Your task to perform on an android device: Open display settings Image 0: 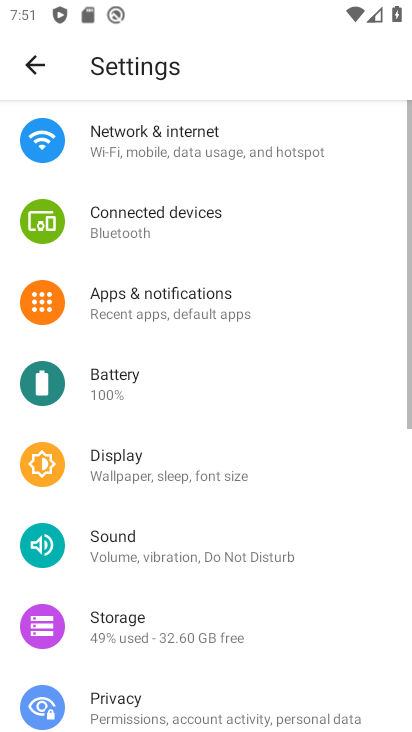
Step 0: press home button
Your task to perform on an android device: Open display settings Image 1: 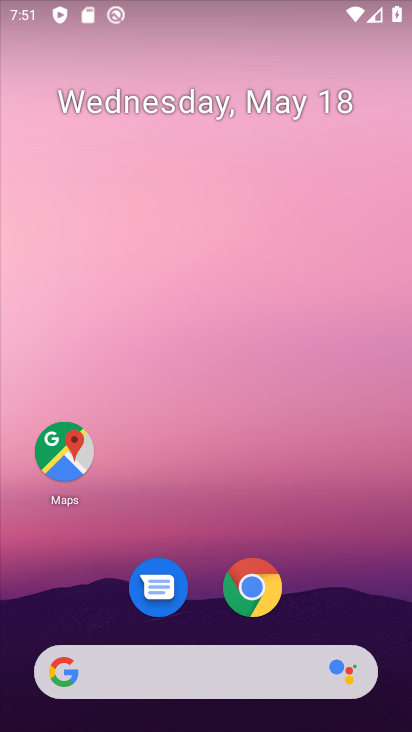
Step 1: drag from (160, 681) to (265, 118)
Your task to perform on an android device: Open display settings Image 2: 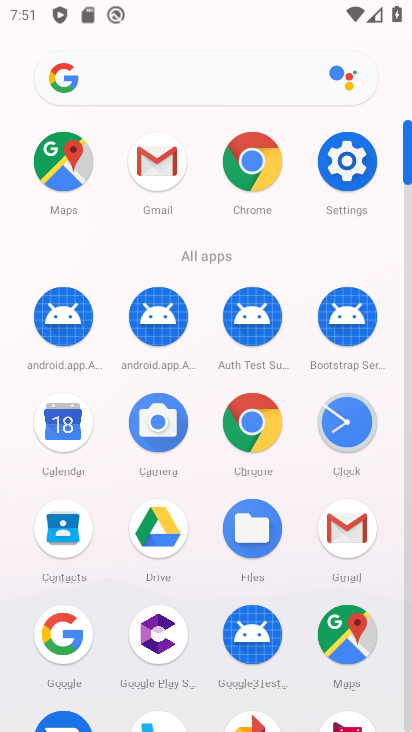
Step 2: click (347, 201)
Your task to perform on an android device: Open display settings Image 3: 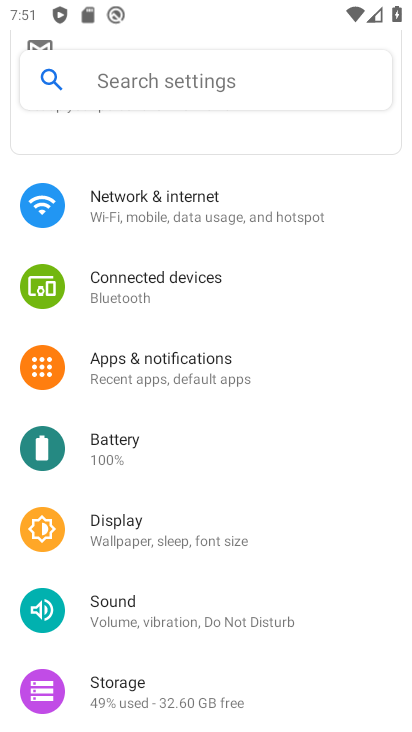
Step 3: click (249, 528)
Your task to perform on an android device: Open display settings Image 4: 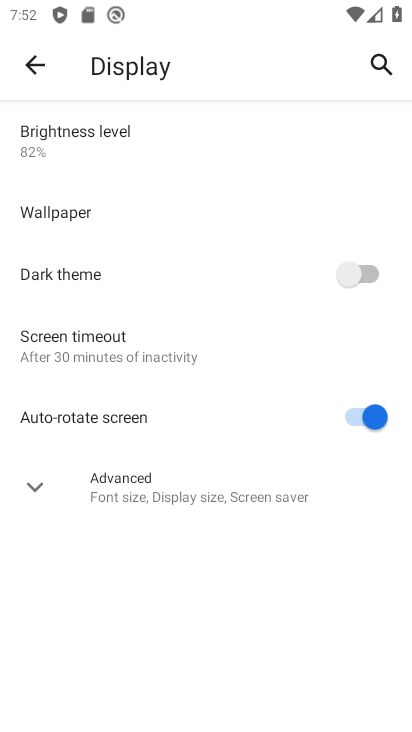
Step 4: click (168, 497)
Your task to perform on an android device: Open display settings Image 5: 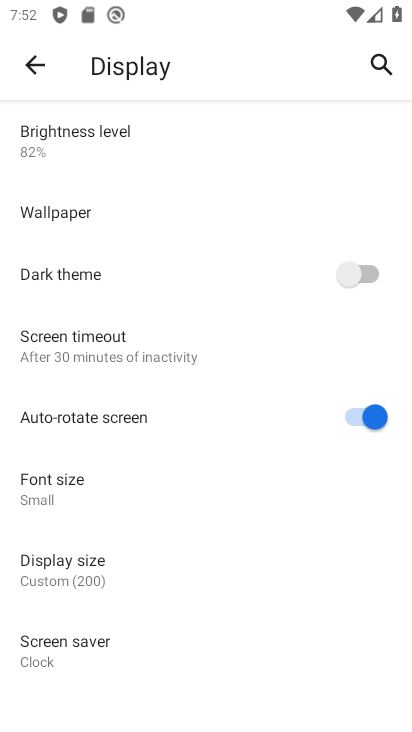
Step 5: task complete